Your task to perform on an android device: turn vacation reply on in the gmail app Image 0: 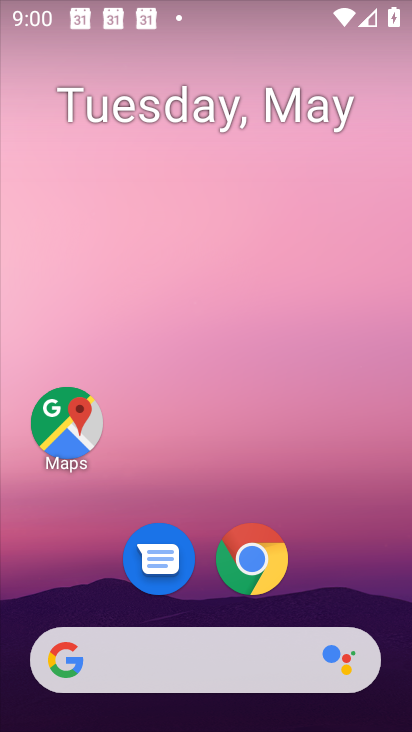
Step 0: drag from (340, 563) to (301, 34)
Your task to perform on an android device: turn vacation reply on in the gmail app Image 1: 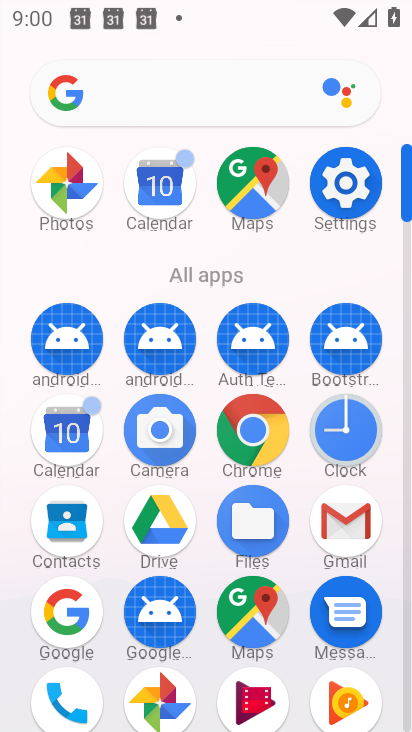
Step 1: drag from (206, 491) to (232, 313)
Your task to perform on an android device: turn vacation reply on in the gmail app Image 2: 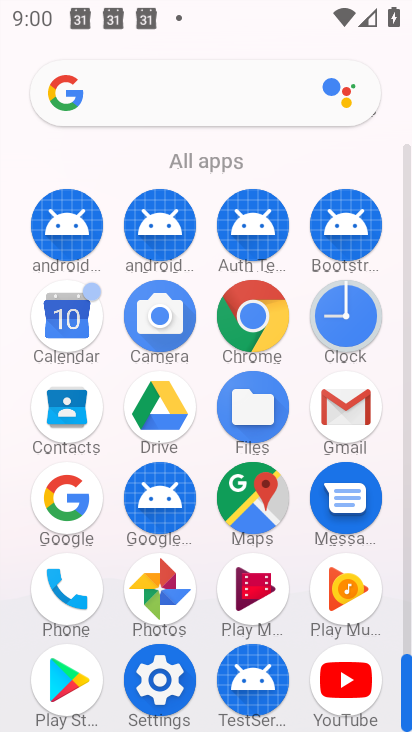
Step 2: click (348, 411)
Your task to perform on an android device: turn vacation reply on in the gmail app Image 3: 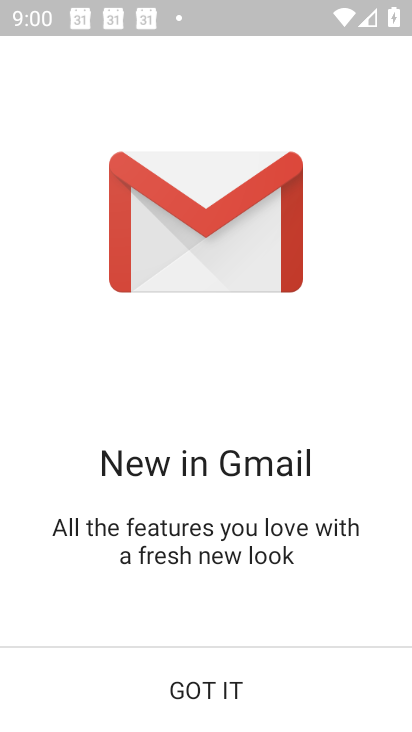
Step 3: click (229, 684)
Your task to perform on an android device: turn vacation reply on in the gmail app Image 4: 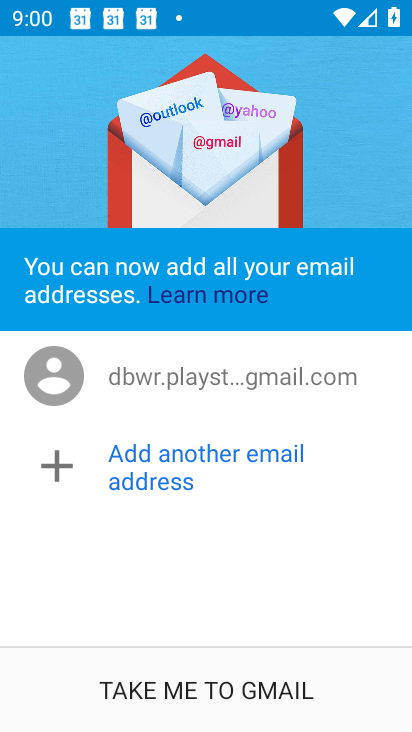
Step 4: click (209, 683)
Your task to perform on an android device: turn vacation reply on in the gmail app Image 5: 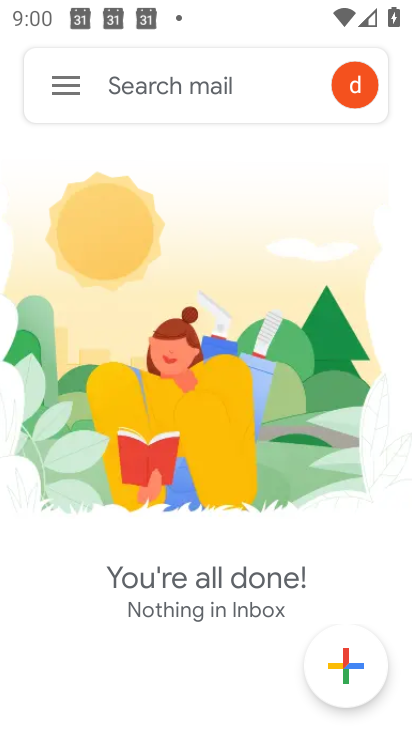
Step 5: click (63, 87)
Your task to perform on an android device: turn vacation reply on in the gmail app Image 6: 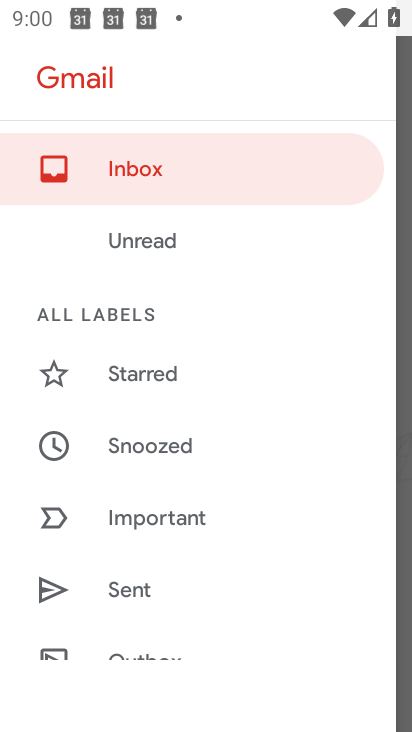
Step 6: drag from (211, 505) to (245, 400)
Your task to perform on an android device: turn vacation reply on in the gmail app Image 7: 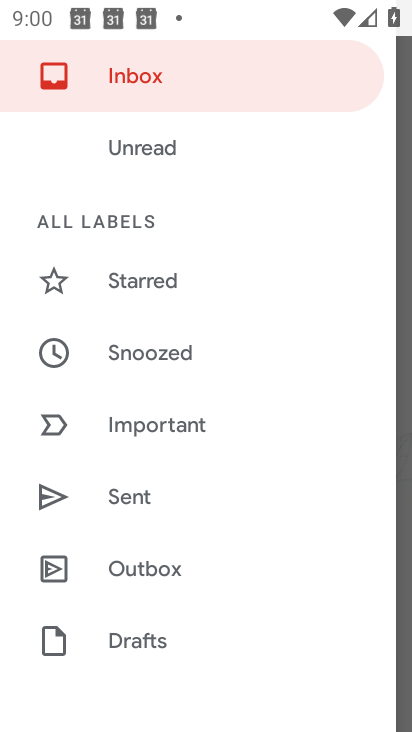
Step 7: drag from (193, 524) to (261, 398)
Your task to perform on an android device: turn vacation reply on in the gmail app Image 8: 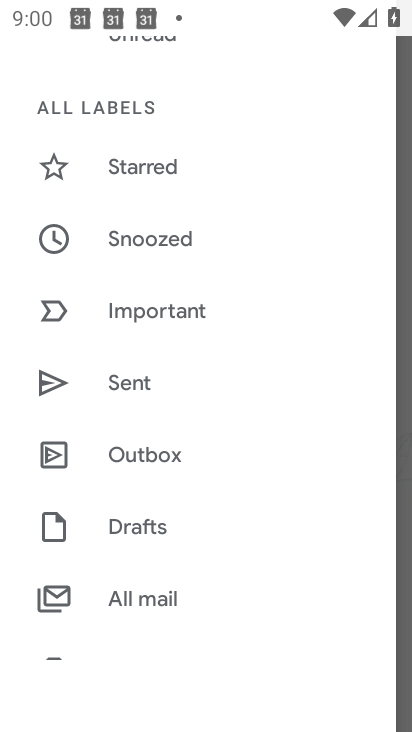
Step 8: drag from (167, 556) to (248, 443)
Your task to perform on an android device: turn vacation reply on in the gmail app Image 9: 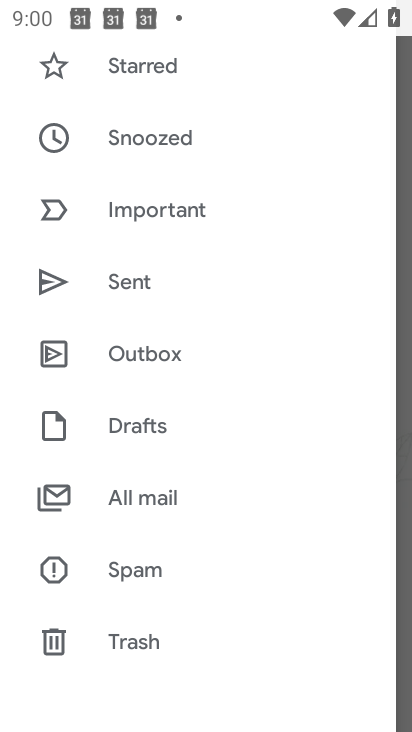
Step 9: drag from (179, 553) to (226, 472)
Your task to perform on an android device: turn vacation reply on in the gmail app Image 10: 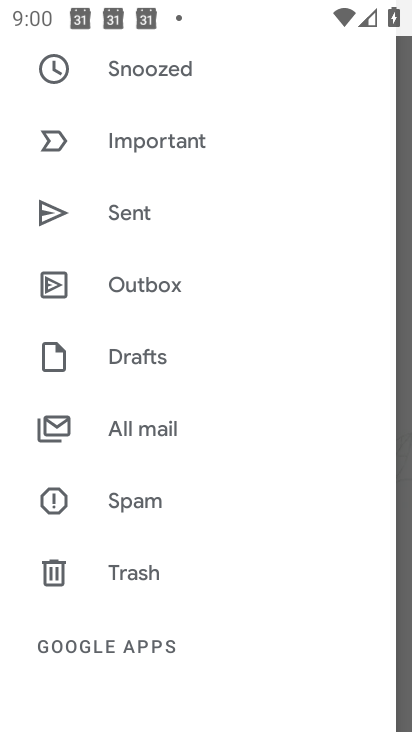
Step 10: drag from (167, 545) to (233, 446)
Your task to perform on an android device: turn vacation reply on in the gmail app Image 11: 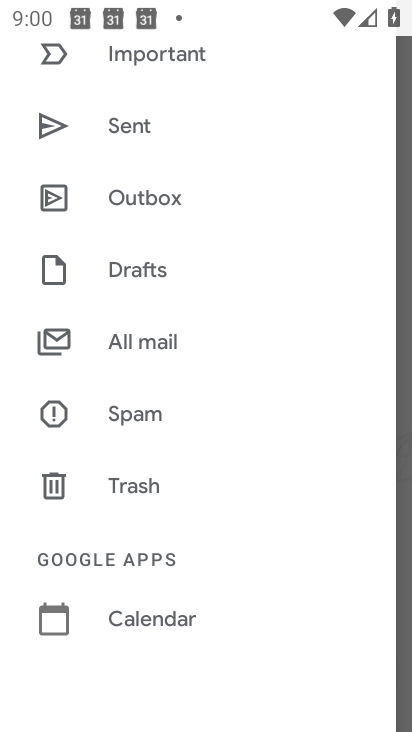
Step 11: drag from (146, 573) to (214, 478)
Your task to perform on an android device: turn vacation reply on in the gmail app Image 12: 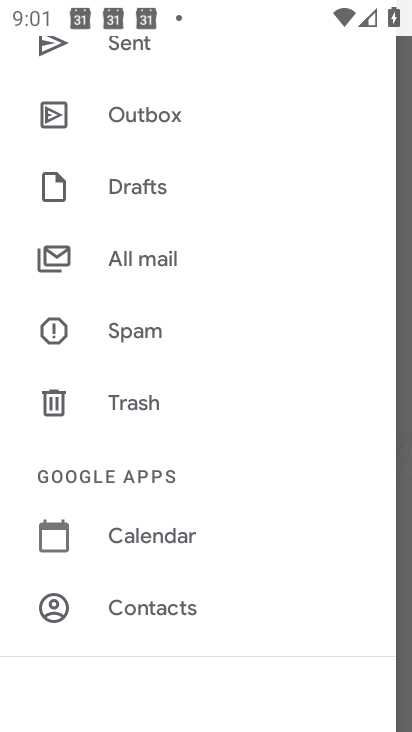
Step 12: drag from (142, 571) to (230, 470)
Your task to perform on an android device: turn vacation reply on in the gmail app Image 13: 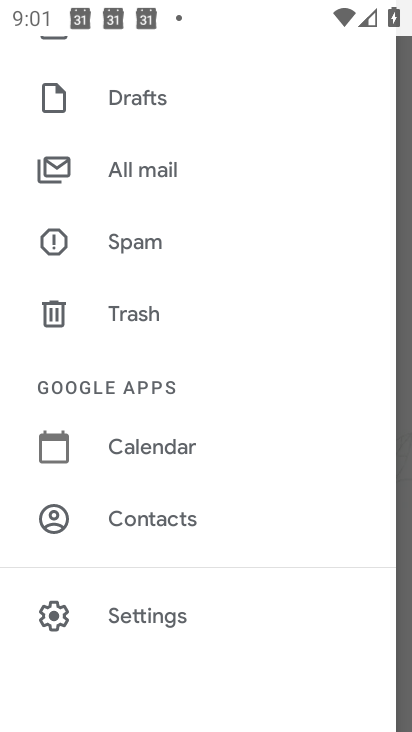
Step 13: drag from (149, 590) to (249, 478)
Your task to perform on an android device: turn vacation reply on in the gmail app Image 14: 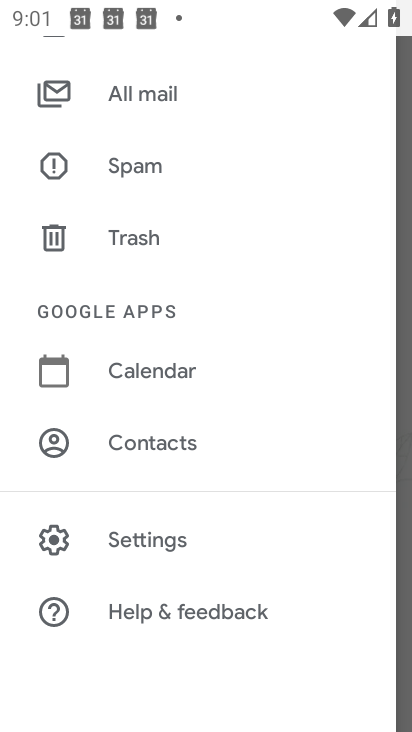
Step 14: click (176, 546)
Your task to perform on an android device: turn vacation reply on in the gmail app Image 15: 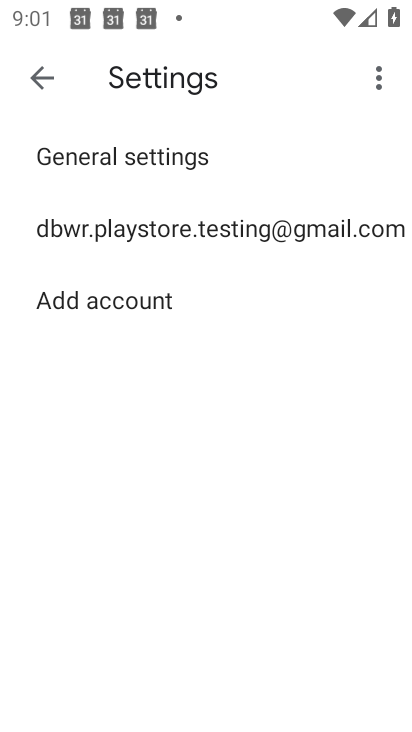
Step 15: click (210, 229)
Your task to perform on an android device: turn vacation reply on in the gmail app Image 16: 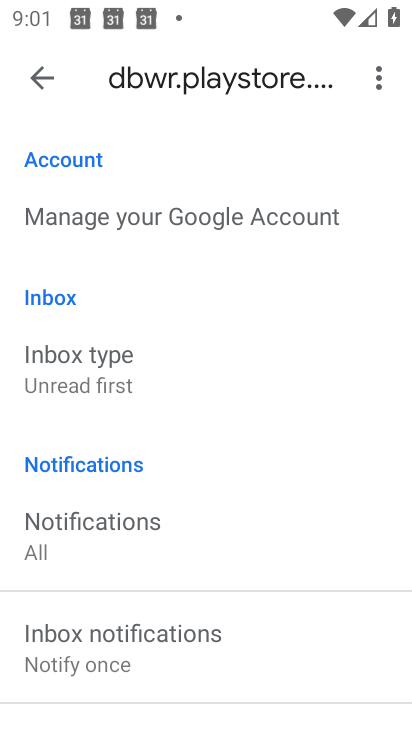
Step 16: drag from (197, 564) to (236, 440)
Your task to perform on an android device: turn vacation reply on in the gmail app Image 17: 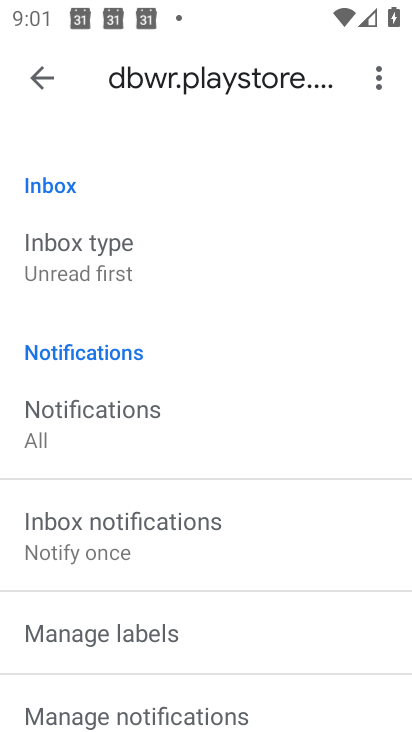
Step 17: drag from (202, 609) to (249, 435)
Your task to perform on an android device: turn vacation reply on in the gmail app Image 18: 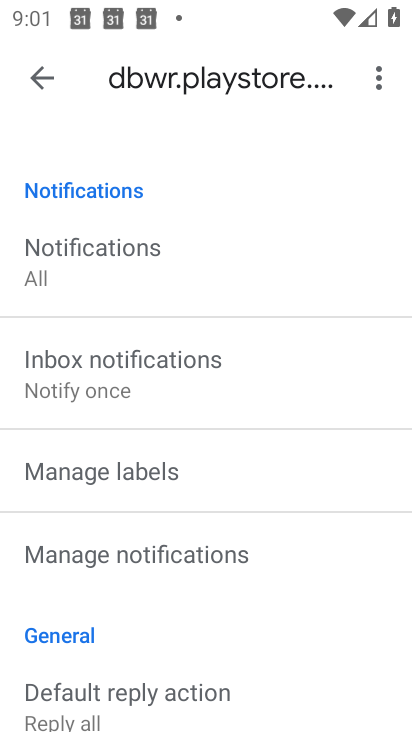
Step 18: drag from (200, 601) to (284, 451)
Your task to perform on an android device: turn vacation reply on in the gmail app Image 19: 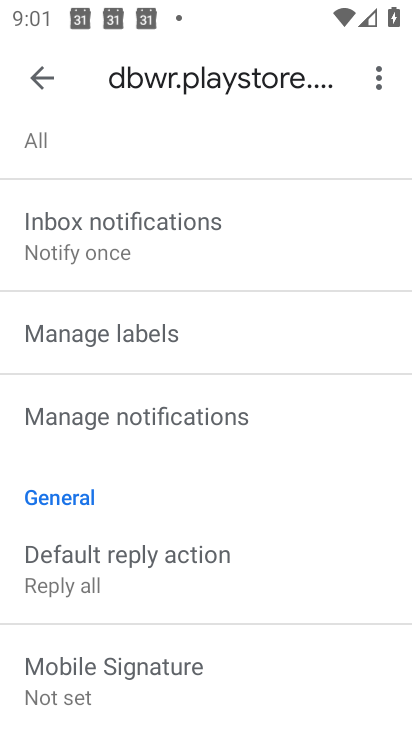
Step 19: drag from (195, 491) to (287, 350)
Your task to perform on an android device: turn vacation reply on in the gmail app Image 20: 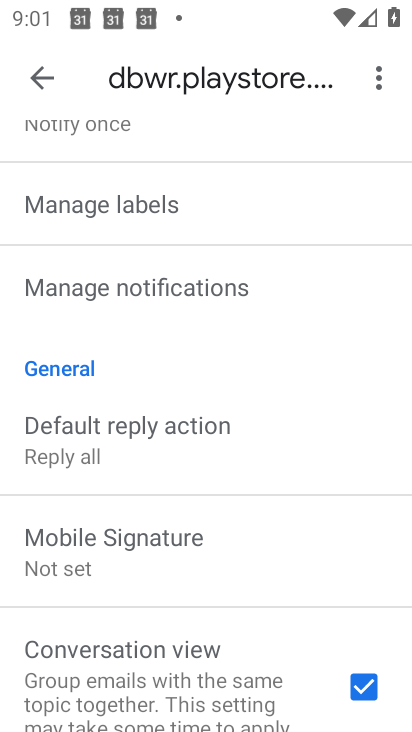
Step 20: drag from (159, 569) to (296, 378)
Your task to perform on an android device: turn vacation reply on in the gmail app Image 21: 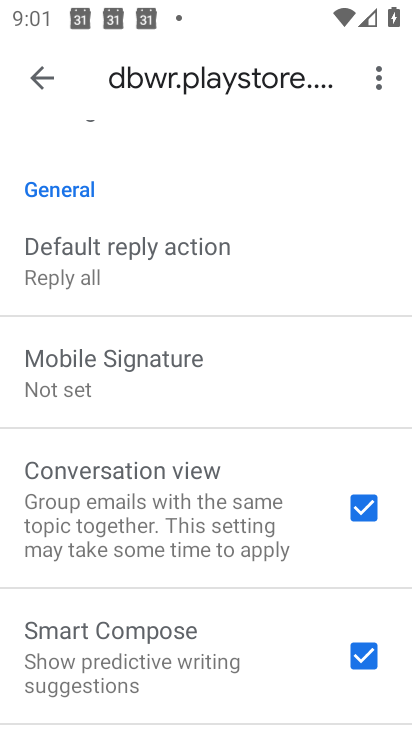
Step 21: drag from (169, 604) to (354, 340)
Your task to perform on an android device: turn vacation reply on in the gmail app Image 22: 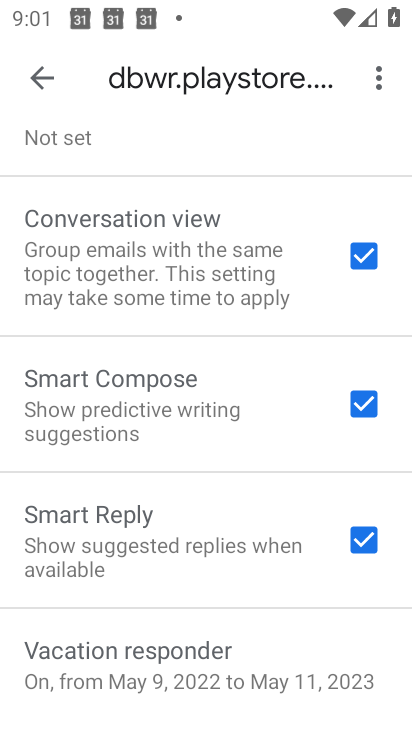
Step 22: drag from (186, 491) to (295, 343)
Your task to perform on an android device: turn vacation reply on in the gmail app Image 23: 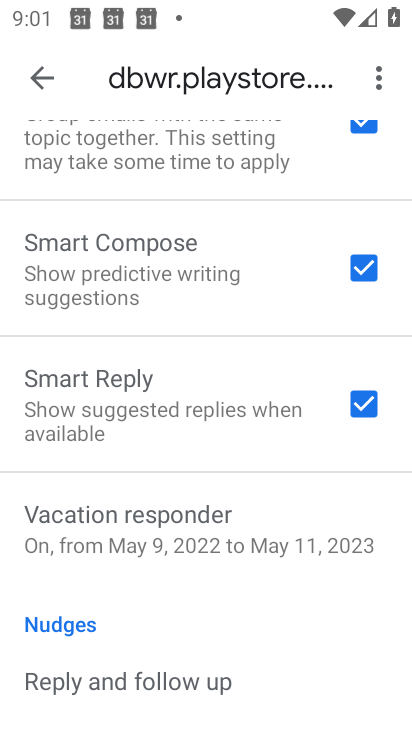
Step 23: click (169, 513)
Your task to perform on an android device: turn vacation reply on in the gmail app Image 24: 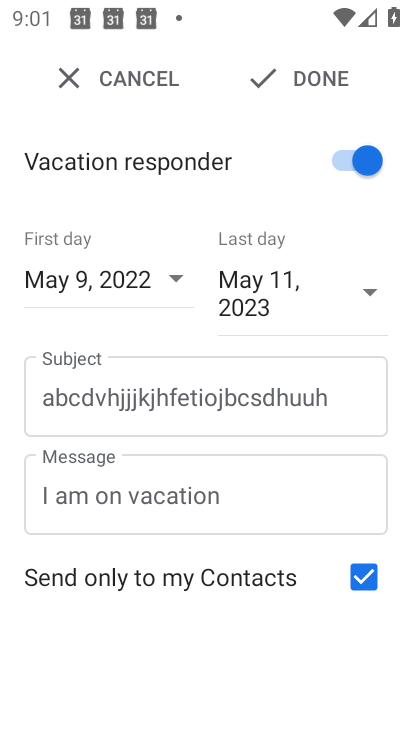
Step 24: task complete